Your task to perform on an android device: Open Youtube and go to the subscriptions tab Image 0: 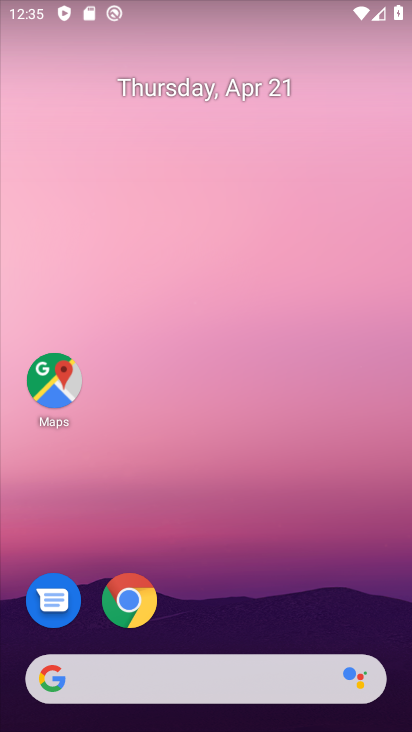
Step 0: drag from (328, 607) to (313, 108)
Your task to perform on an android device: Open Youtube and go to the subscriptions tab Image 1: 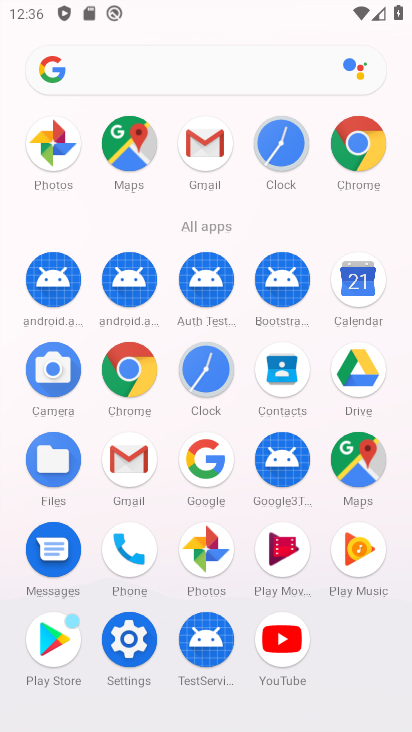
Step 1: click (277, 643)
Your task to perform on an android device: Open Youtube and go to the subscriptions tab Image 2: 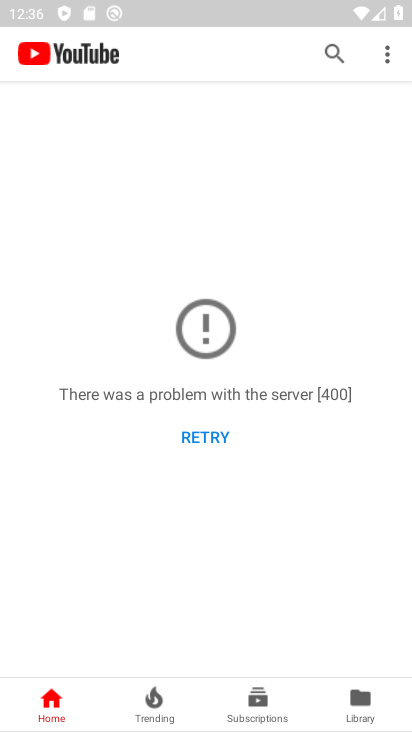
Step 2: click (264, 708)
Your task to perform on an android device: Open Youtube and go to the subscriptions tab Image 3: 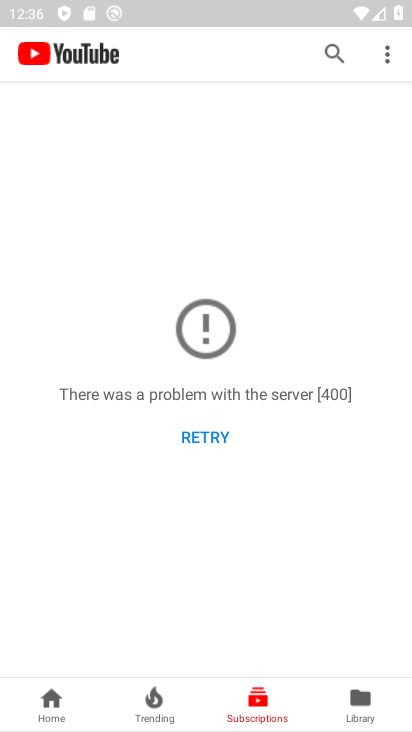
Step 3: task complete